Your task to perform on an android device: When is my next appointment? Image 0: 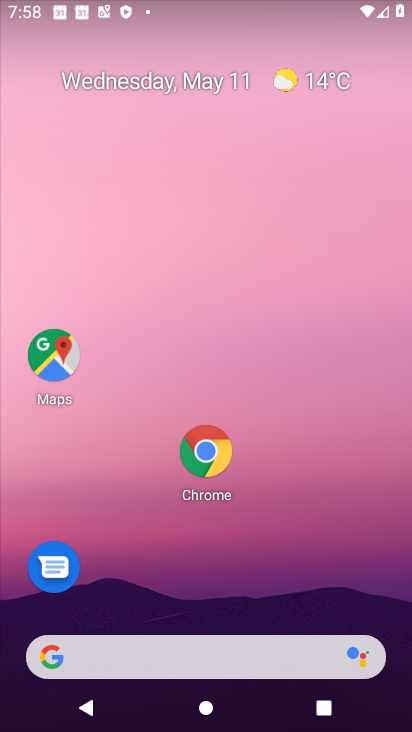
Step 0: drag from (194, 658) to (349, 108)
Your task to perform on an android device: When is my next appointment? Image 1: 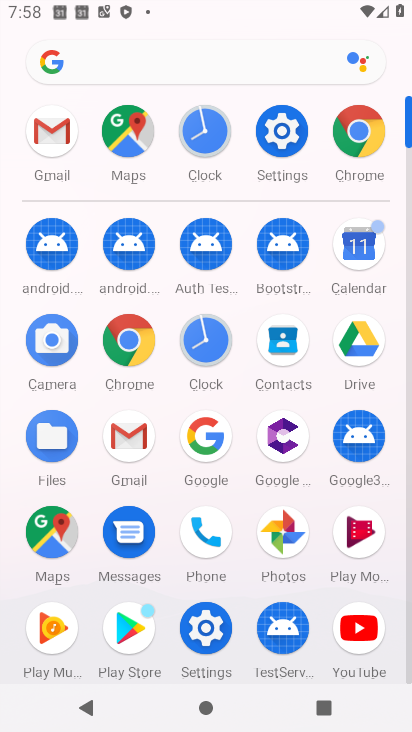
Step 1: click (360, 248)
Your task to perform on an android device: When is my next appointment? Image 2: 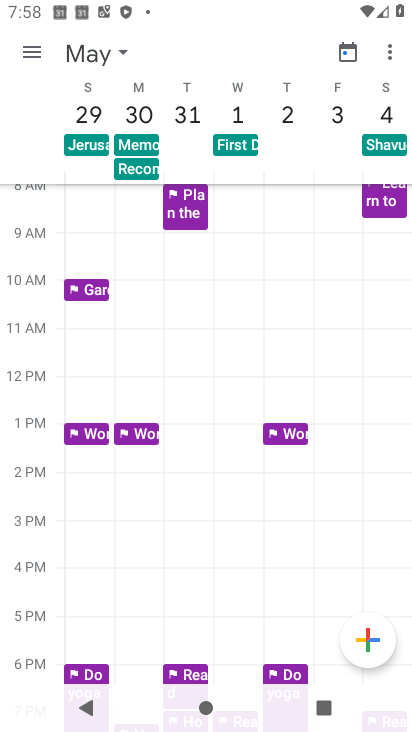
Step 2: click (87, 48)
Your task to perform on an android device: When is my next appointment? Image 3: 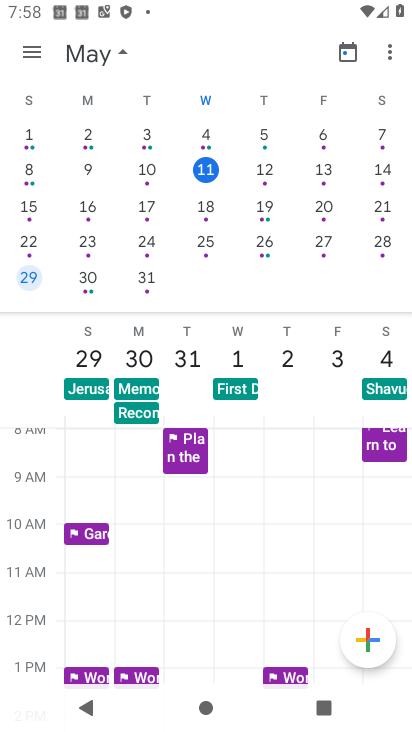
Step 3: click (33, 52)
Your task to perform on an android device: When is my next appointment? Image 4: 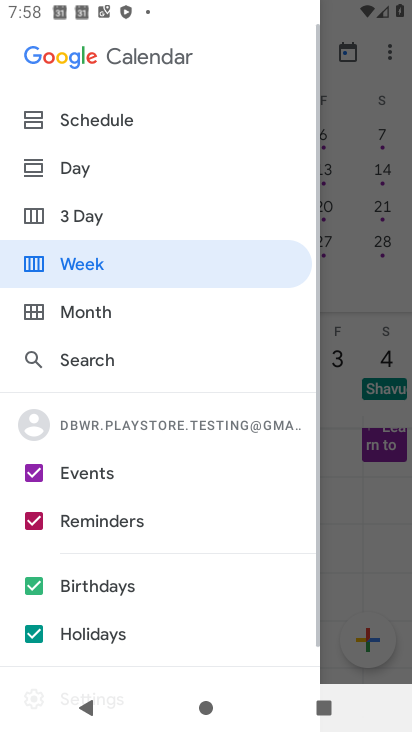
Step 4: click (80, 117)
Your task to perform on an android device: When is my next appointment? Image 5: 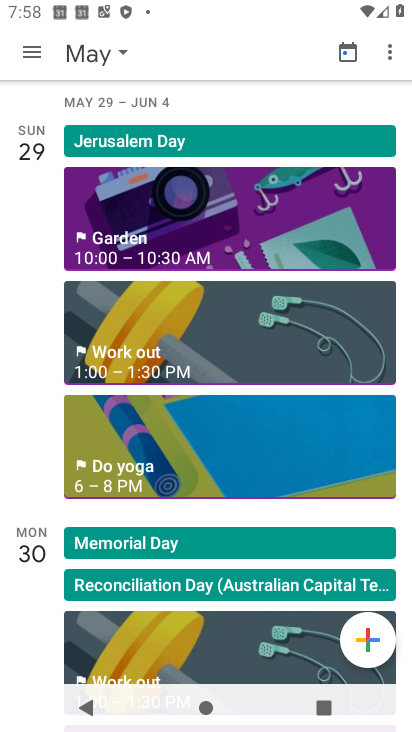
Step 5: click (99, 58)
Your task to perform on an android device: When is my next appointment? Image 6: 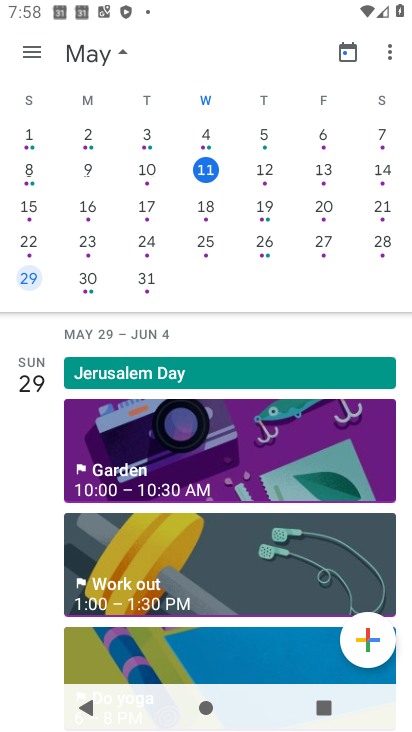
Step 6: click (211, 169)
Your task to perform on an android device: When is my next appointment? Image 7: 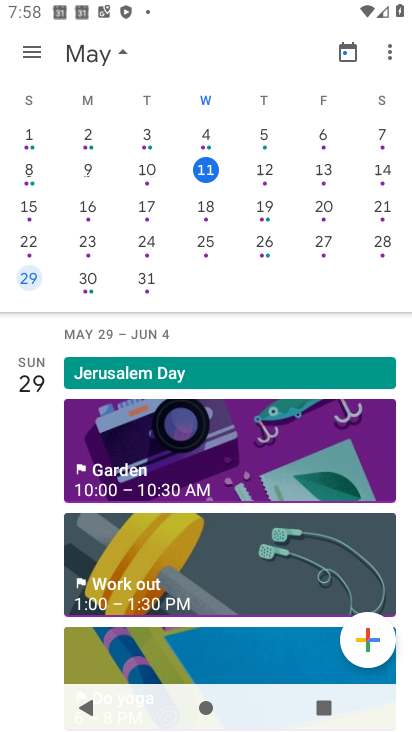
Step 7: click (211, 170)
Your task to perform on an android device: When is my next appointment? Image 8: 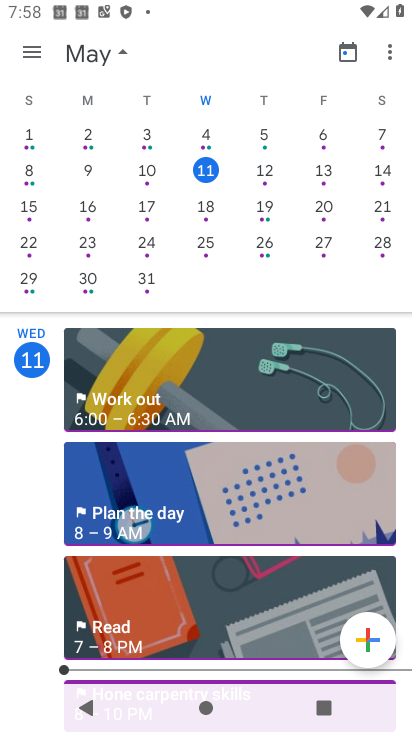
Step 8: click (37, 49)
Your task to perform on an android device: When is my next appointment? Image 9: 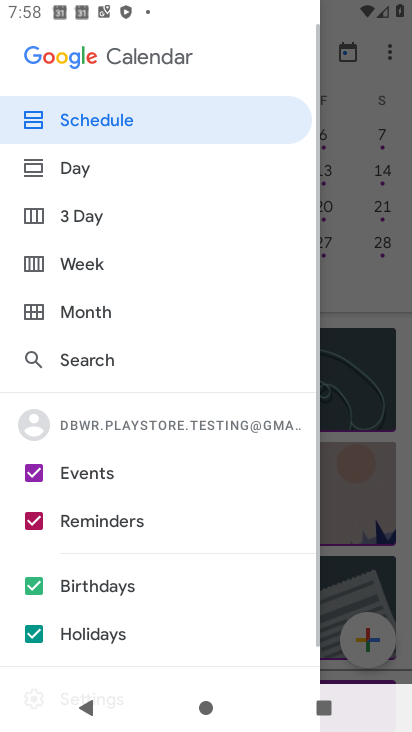
Step 9: click (77, 119)
Your task to perform on an android device: When is my next appointment? Image 10: 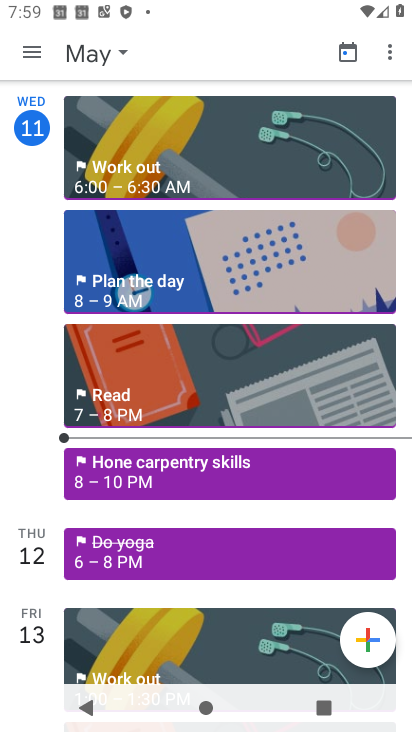
Step 10: click (186, 462)
Your task to perform on an android device: When is my next appointment? Image 11: 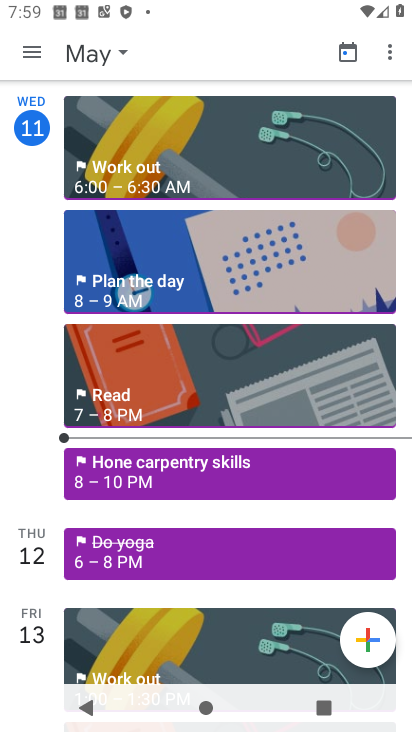
Step 11: click (171, 469)
Your task to perform on an android device: When is my next appointment? Image 12: 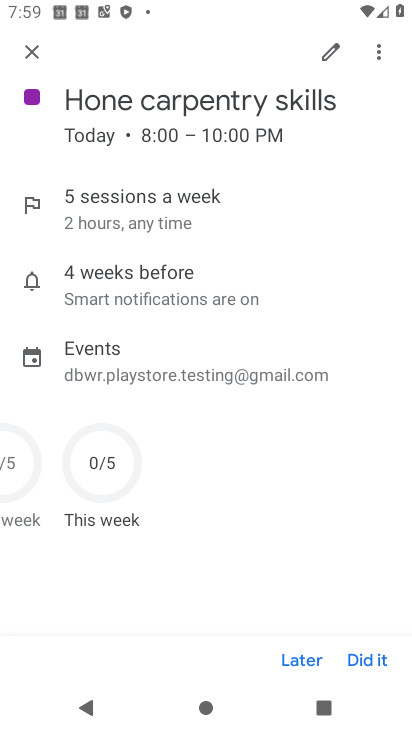
Step 12: task complete